Your task to perform on an android device: Search for the best Mexican restaurants Image 0: 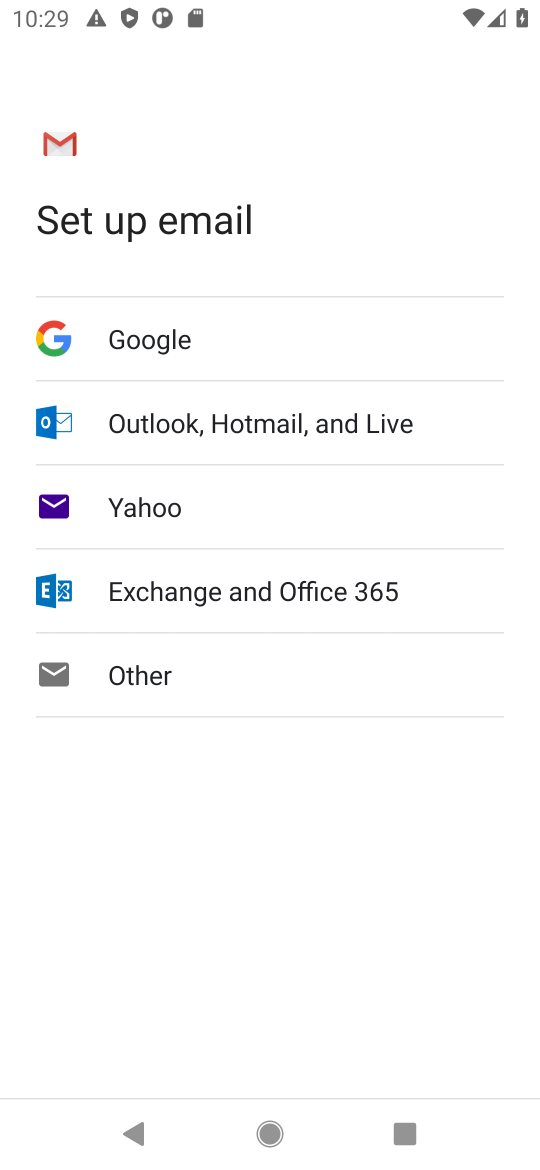
Step 0: press home button
Your task to perform on an android device: Search for the best Mexican restaurants Image 1: 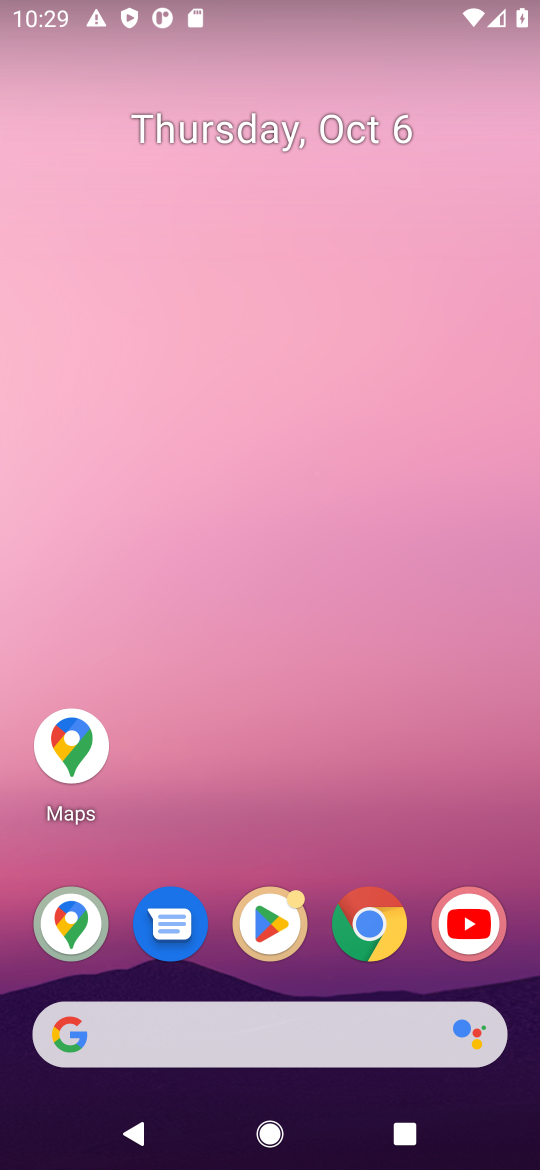
Step 1: click (68, 741)
Your task to perform on an android device: Search for the best Mexican restaurants Image 2: 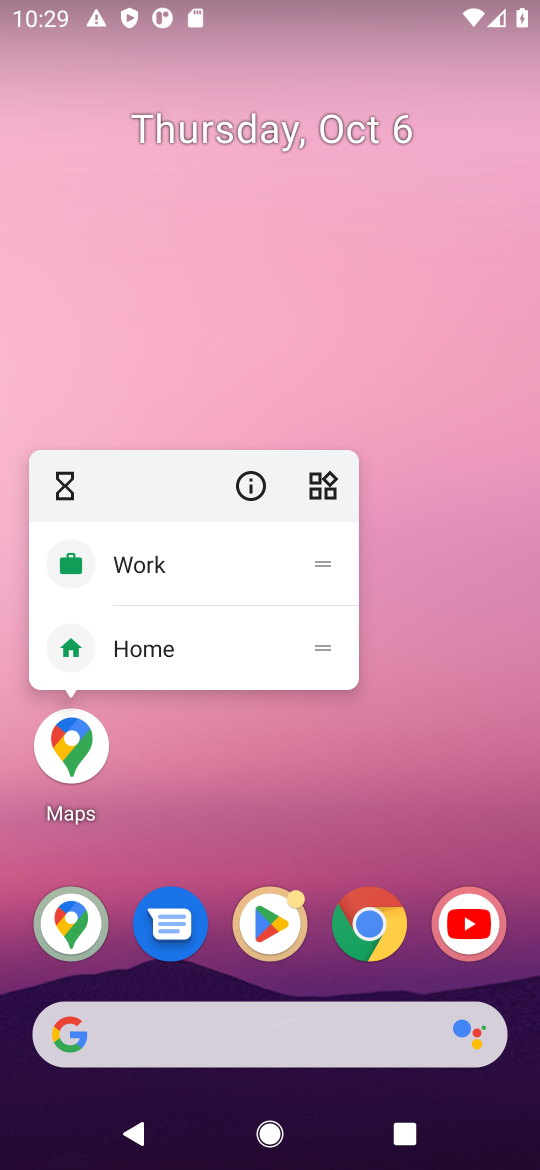
Step 2: click (68, 743)
Your task to perform on an android device: Search for the best Mexican restaurants Image 3: 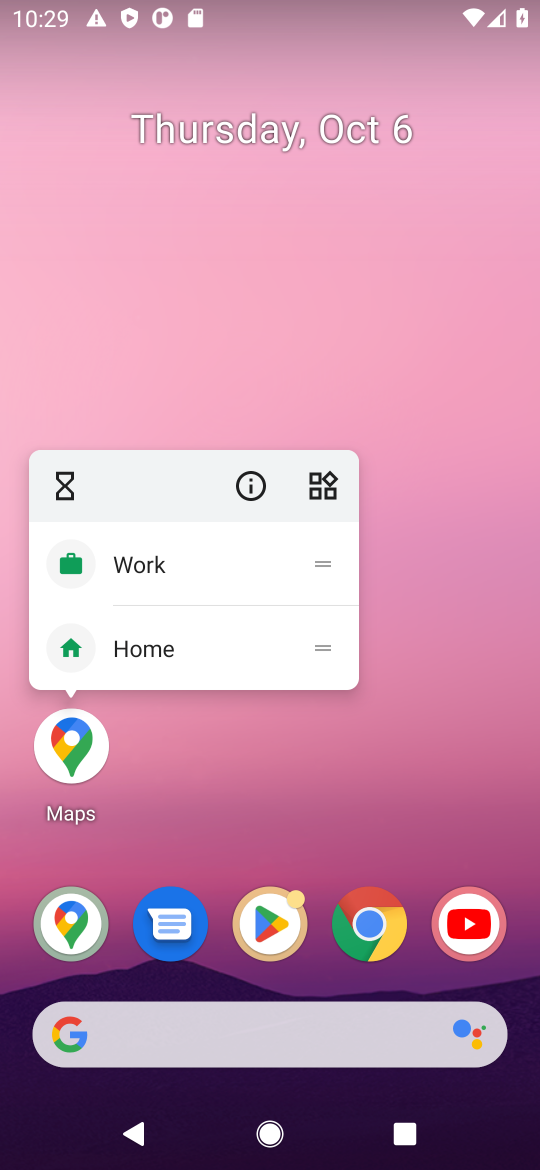
Step 3: click (68, 743)
Your task to perform on an android device: Search for the best Mexican restaurants Image 4: 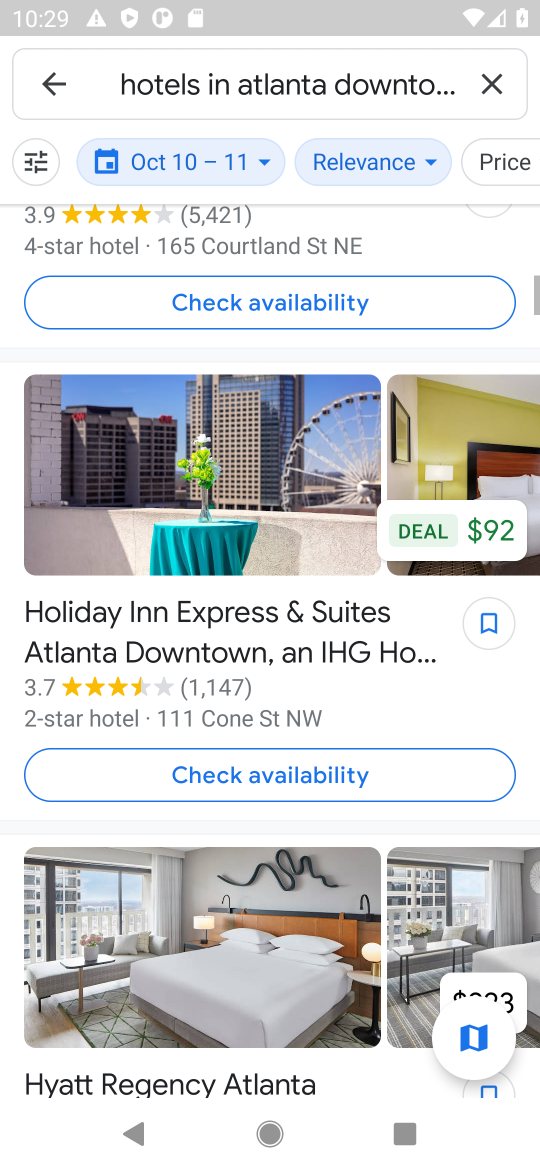
Step 4: click (488, 80)
Your task to perform on an android device: Search for the best Mexican restaurants Image 5: 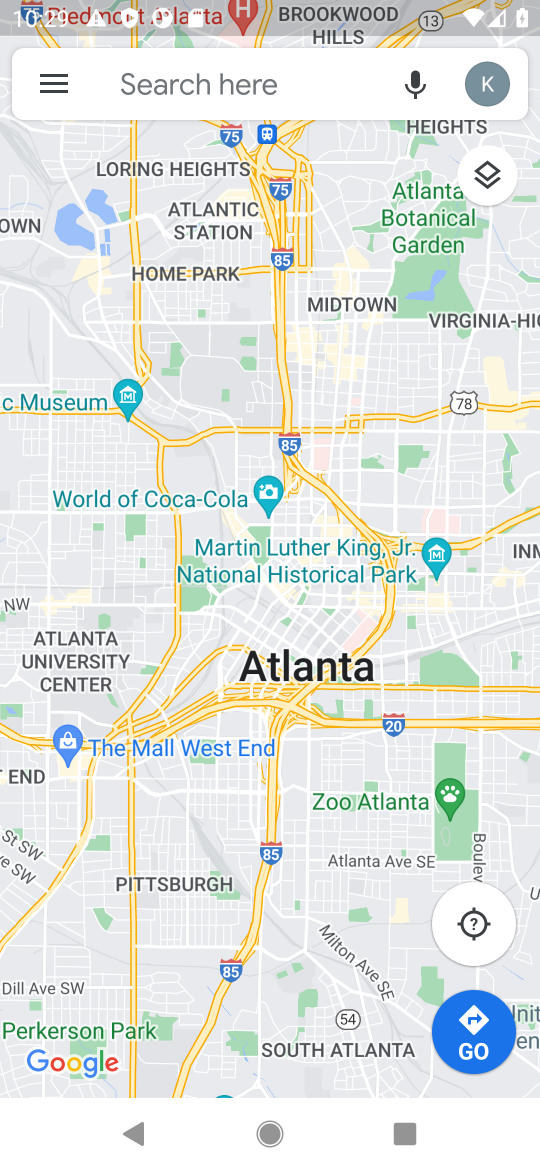
Step 5: click (218, 76)
Your task to perform on an android device: Search for the best Mexican restaurants Image 6: 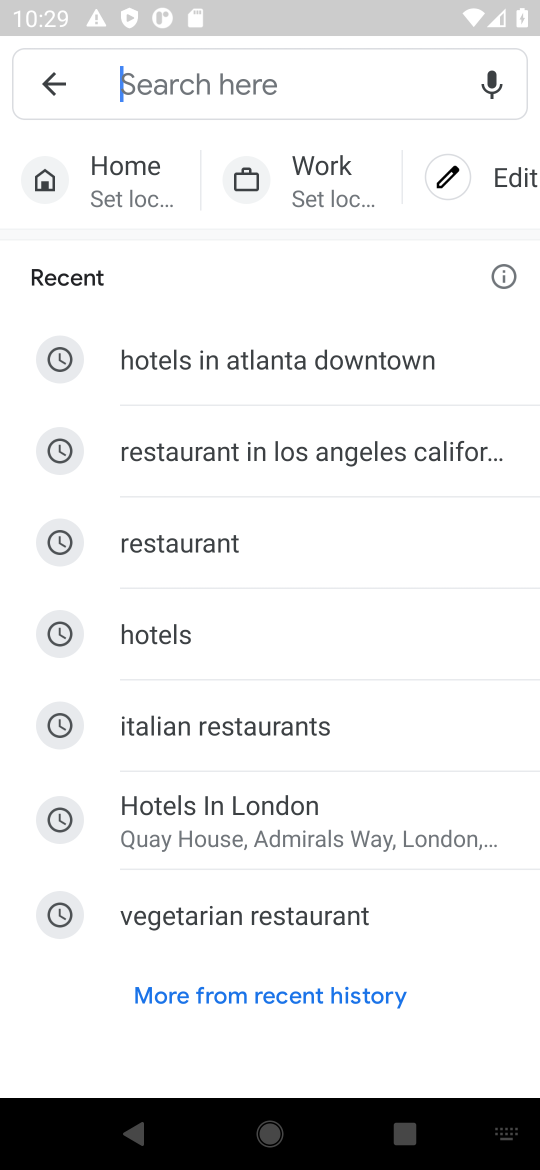
Step 6: type "Mexican restaurants"
Your task to perform on an android device: Search for the best Mexican restaurants Image 7: 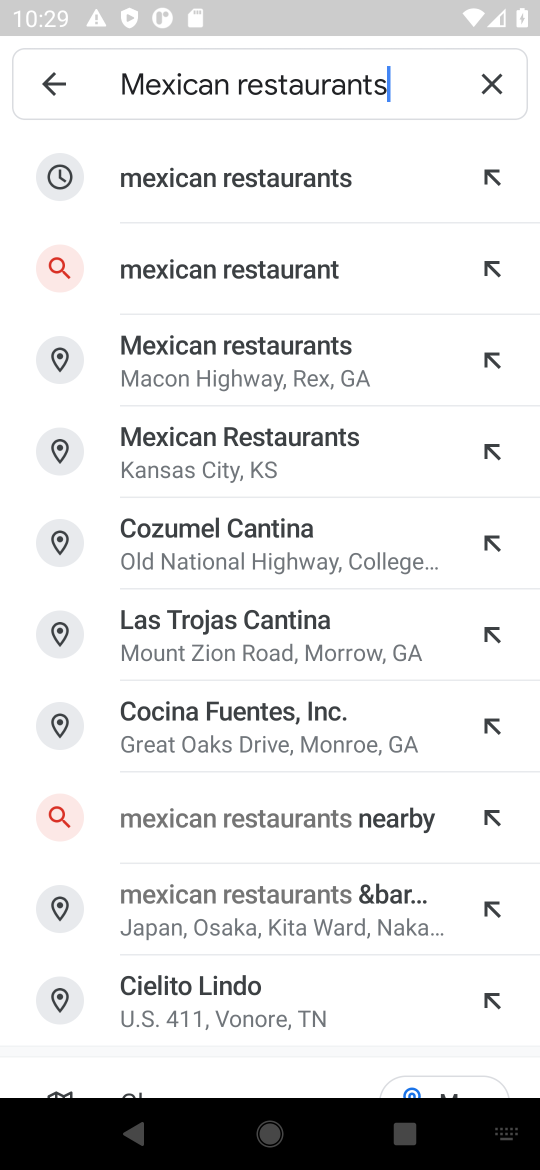
Step 7: click (240, 176)
Your task to perform on an android device: Search for the best Mexican restaurants Image 8: 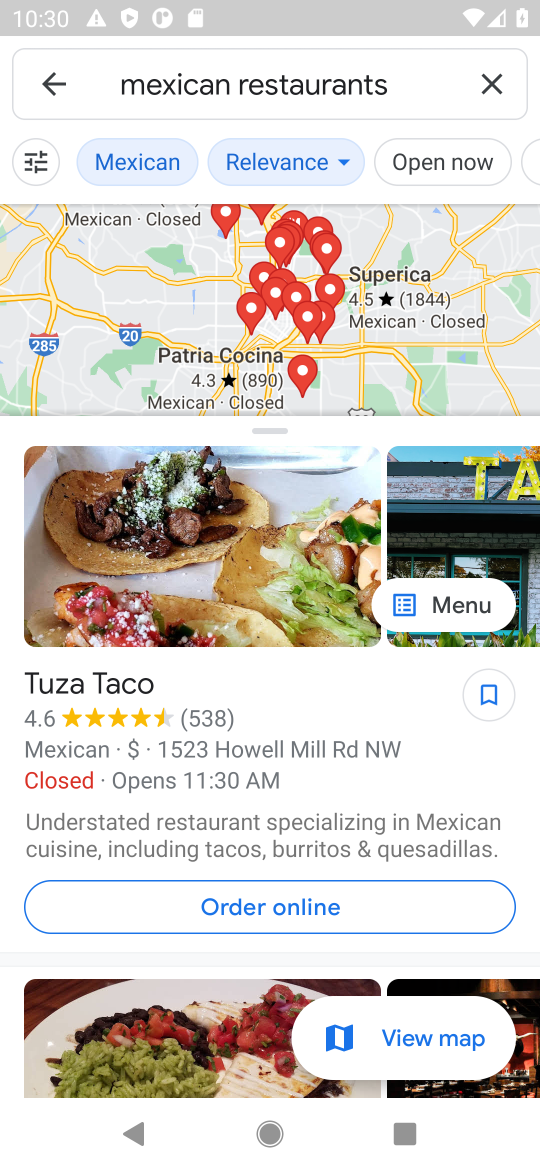
Step 8: task complete